Your task to perform on an android device: Go to CNN.com Image 0: 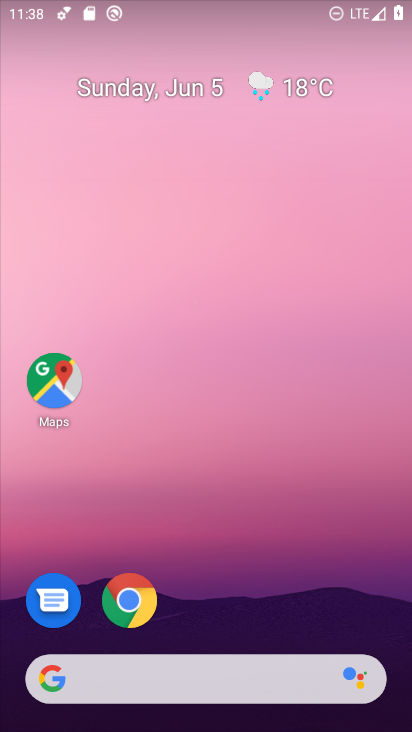
Step 0: click (148, 582)
Your task to perform on an android device: Go to CNN.com Image 1: 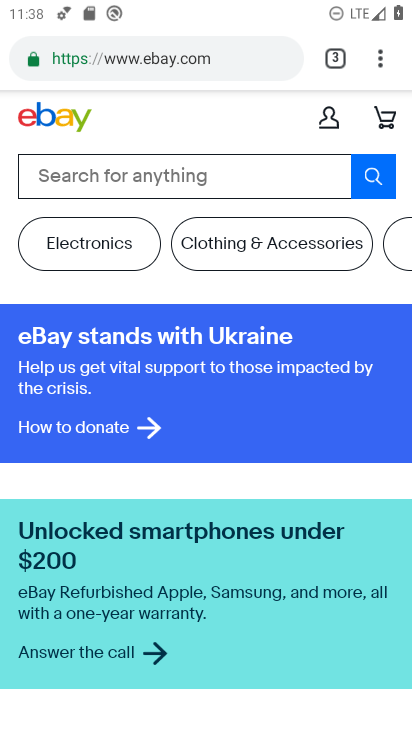
Step 1: click (334, 63)
Your task to perform on an android device: Go to CNN.com Image 2: 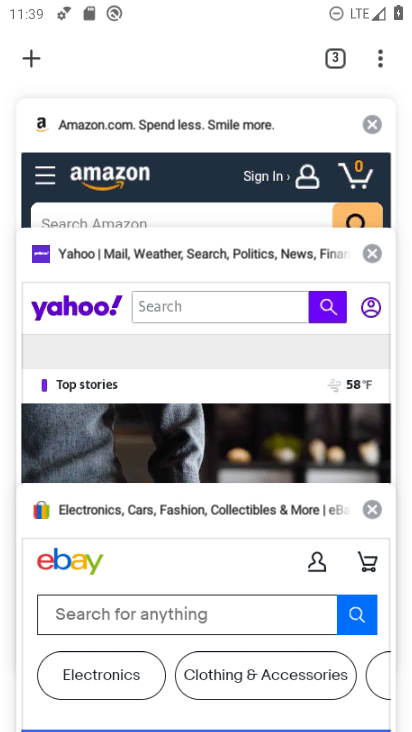
Step 2: click (33, 49)
Your task to perform on an android device: Go to CNN.com Image 3: 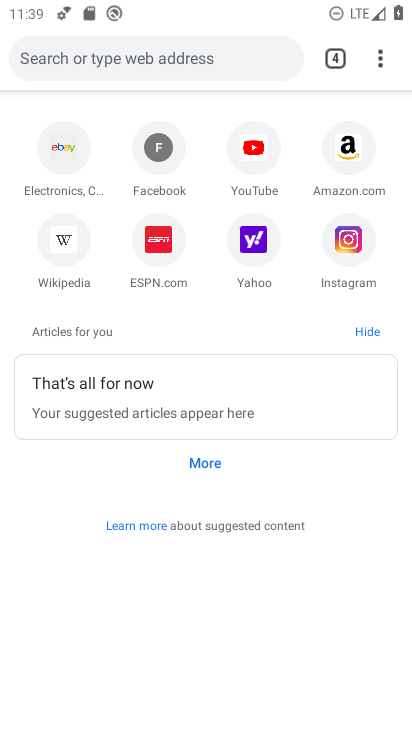
Step 3: click (104, 71)
Your task to perform on an android device: Go to CNN.com Image 4: 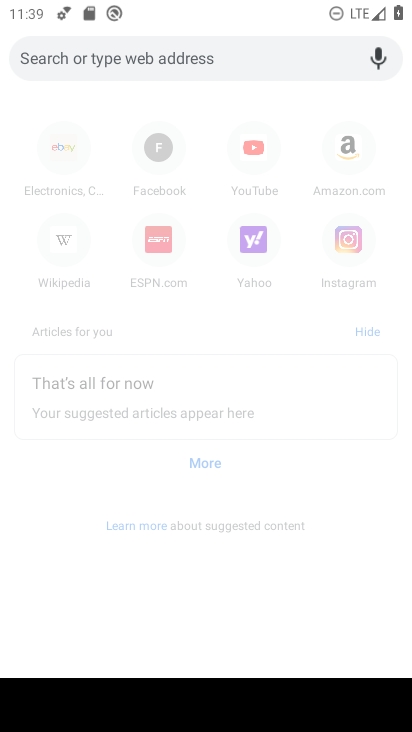
Step 4: type "CNN.com"
Your task to perform on an android device: Go to CNN.com Image 5: 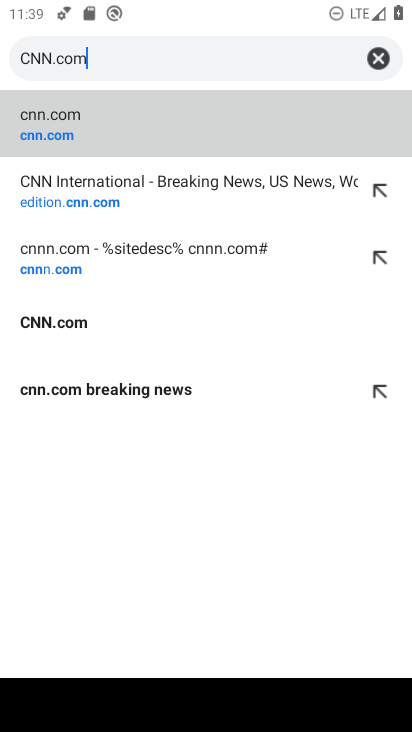
Step 5: click (78, 123)
Your task to perform on an android device: Go to CNN.com Image 6: 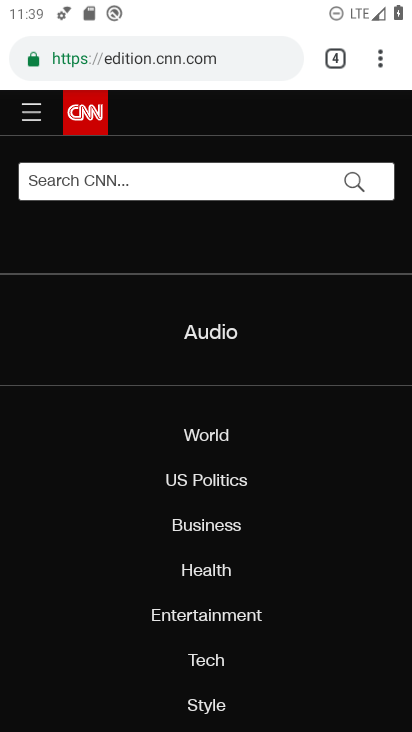
Step 6: task complete